Your task to perform on an android device: open a bookmark in the chrome app Image 0: 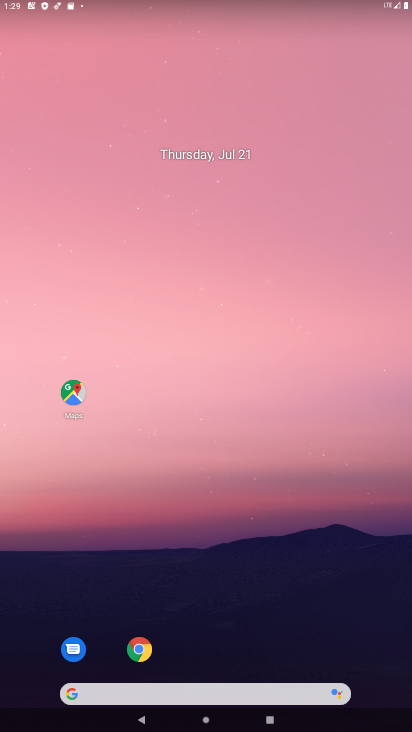
Step 0: click (139, 651)
Your task to perform on an android device: open a bookmark in the chrome app Image 1: 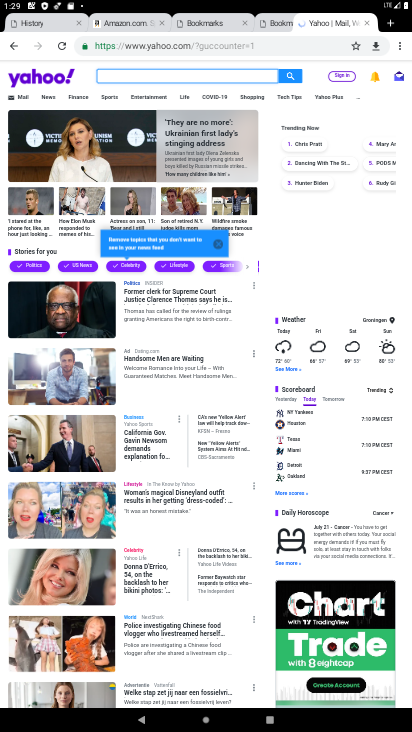
Step 1: click (401, 40)
Your task to perform on an android device: open a bookmark in the chrome app Image 2: 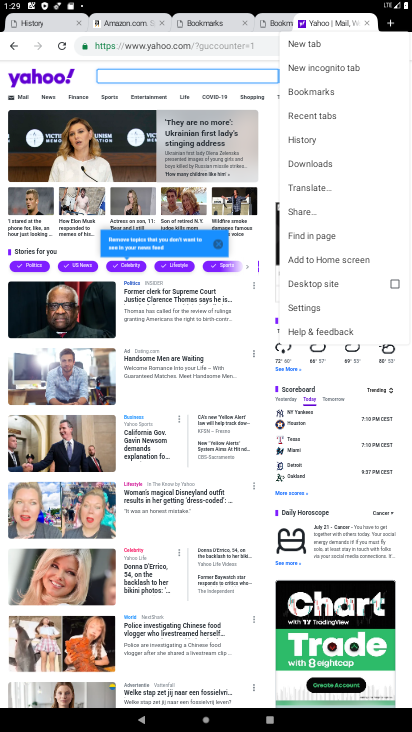
Step 2: click (304, 92)
Your task to perform on an android device: open a bookmark in the chrome app Image 3: 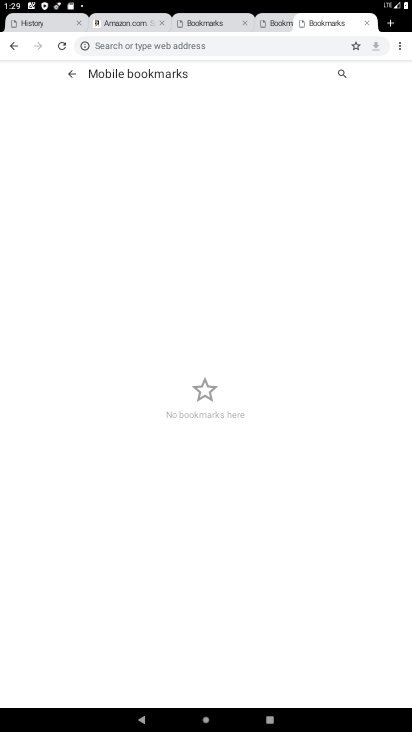
Step 3: task complete